Your task to perform on an android device: What's the weather today? Image 0: 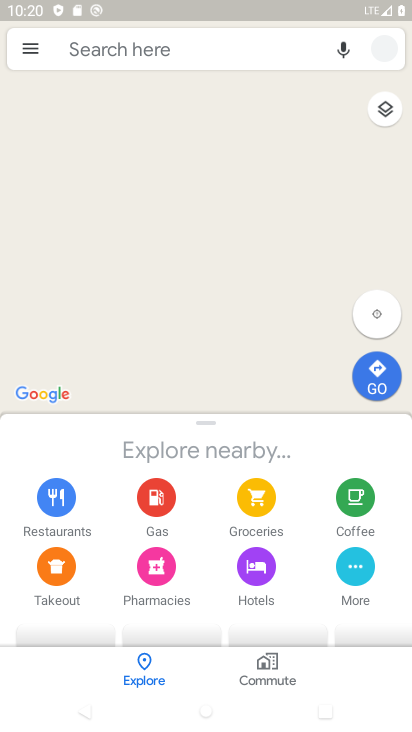
Step 0: press home button
Your task to perform on an android device: What's the weather today? Image 1: 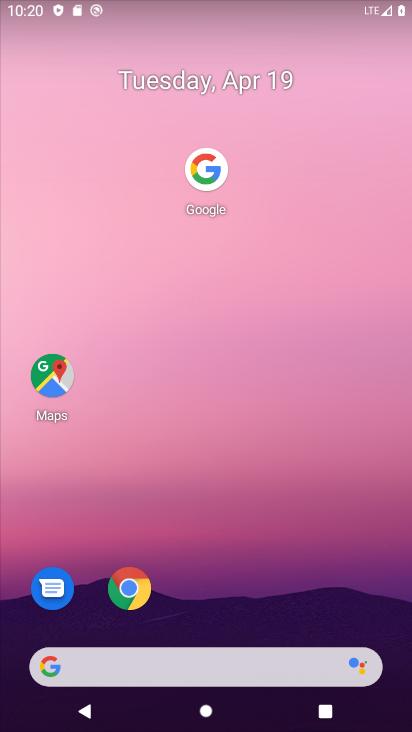
Step 1: click (227, 670)
Your task to perform on an android device: What's the weather today? Image 2: 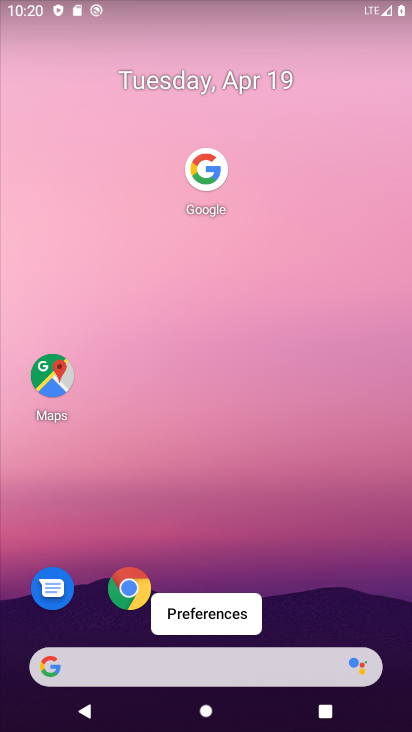
Step 2: drag from (240, 663) to (201, 308)
Your task to perform on an android device: What's the weather today? Image 3: 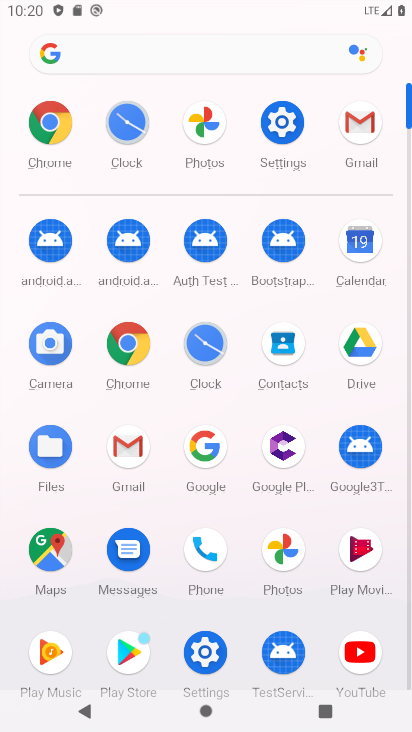
Step 3: click (199, 445)
Your task to perform on an android device: What's the weather today? Image 4: 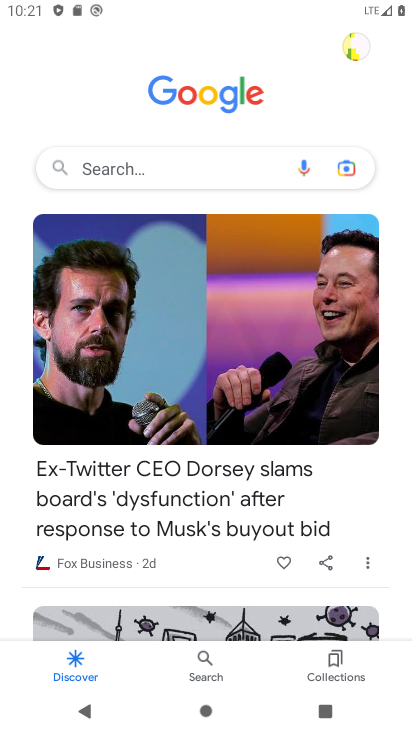
Step 4: click (162, 164)
Your task to perform on an android device: What's the weather today? Image 5: 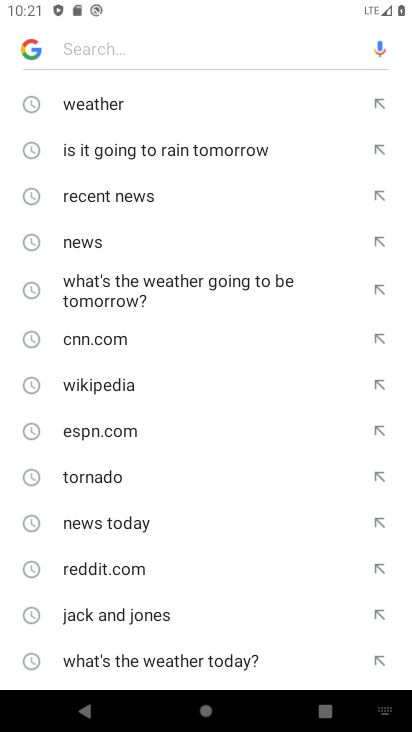
Step 5: click (153, 663)
Your task to perform on an android device: What's the weather today? Image 6: 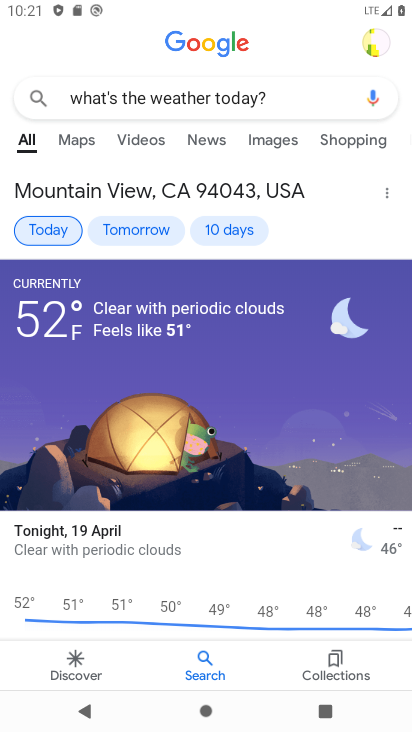
Step 6: task complete